Your task to perform on an android device: turn on the 24-hour format for clock Image 0: 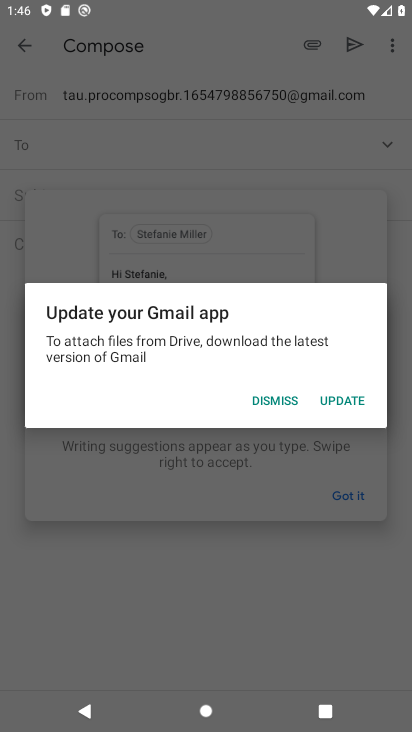
Step 0: press home button
Your task to perform on an android device: turn on the 24-hour format for clock Image 1: 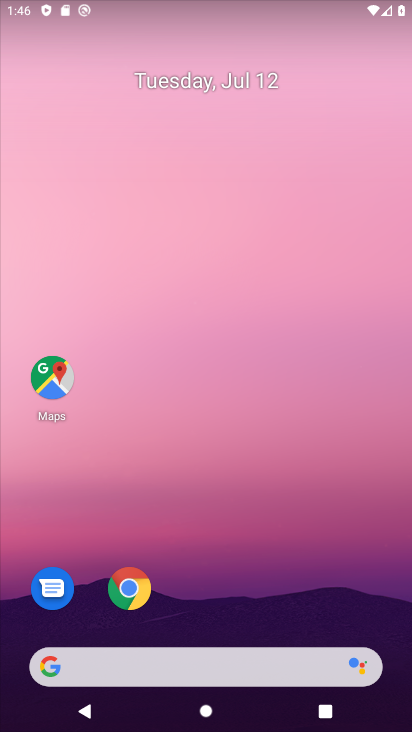
Step 1: drag from (229, 629) to (294, 57)
Your task to perform on an android device: turn on the 24-hour format for clock Image 2: 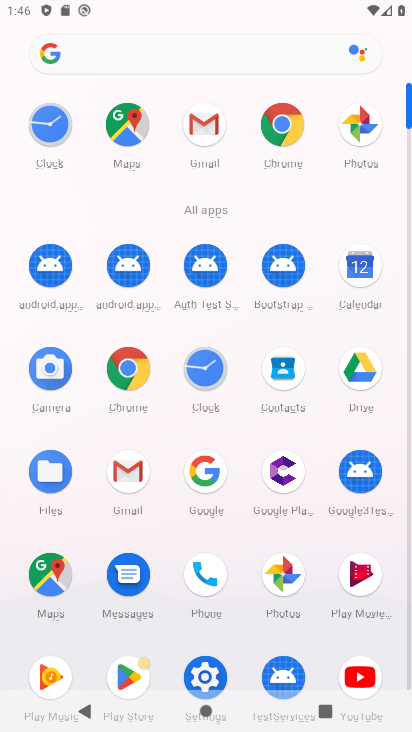
Step 2: click (34, 125)
Your task to perform on an android device: turn on the 24-hour format for clock Image 3: 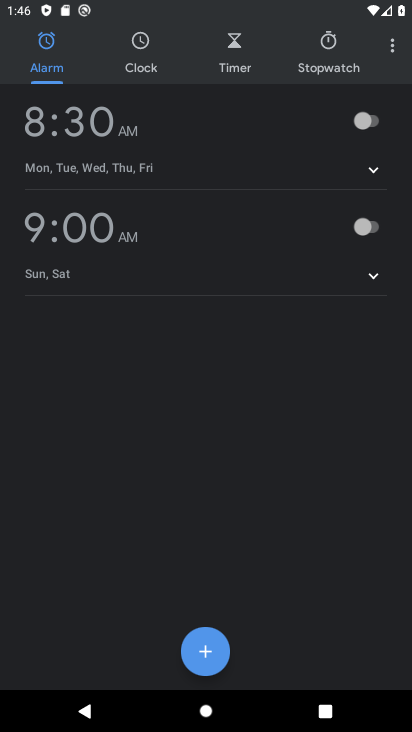
Step 3: click (384, 52)
Your task to perform on an android device: turn on the 24-hour format for clock Image 4: 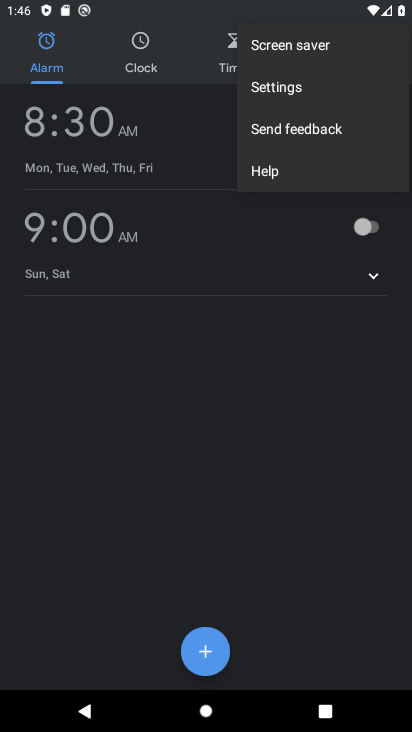
Step 4: click (323, 84)
Your task to perform on an android device: turn on the 24-hour format for clock Image 5: 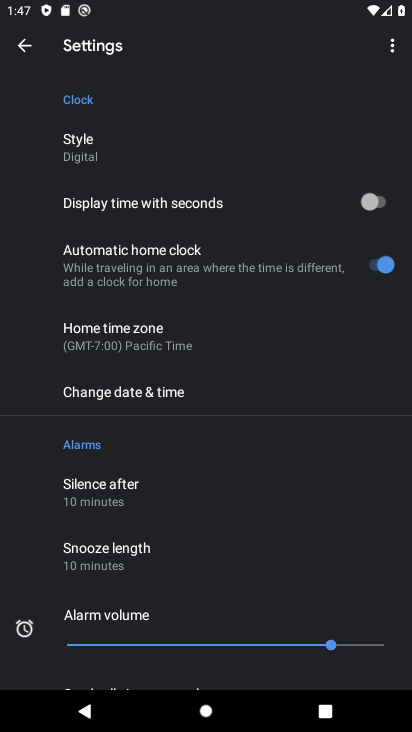
Step 5: drag from (161, 494) to (183, 88)
Your task to perform on an android device: turn on the 24-hour format for clock Image 6: 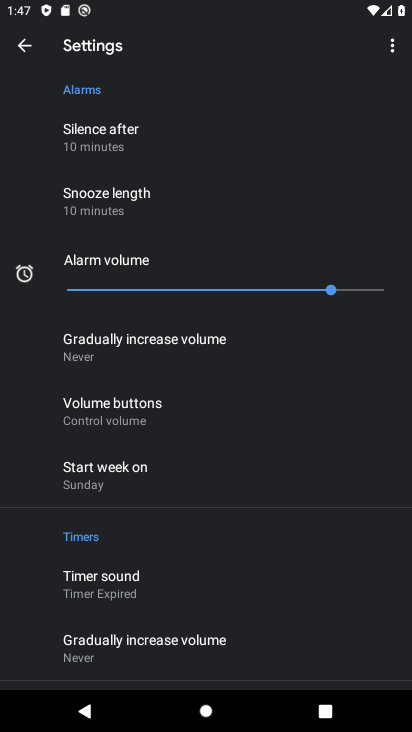
Step 6: drag from (147, 588) to (212, 161)
Your task to perform on an android device: turn on the 24-hour format for clock Image 7: 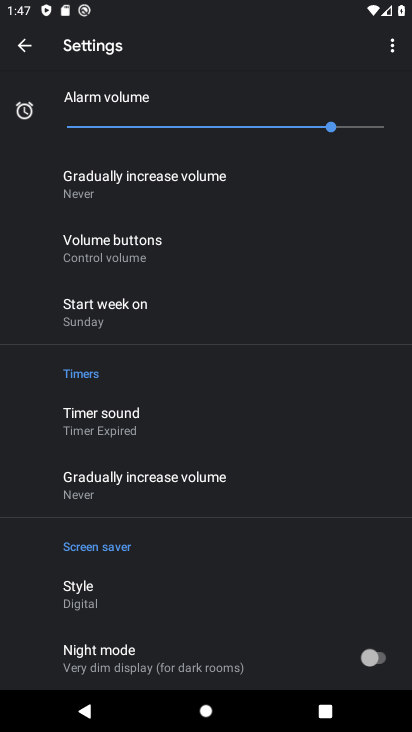
Step 7: drag from (143, 657) to (148, 317)
Your task to perform on an android device: turn on the 24-hour format for clock Image 8: 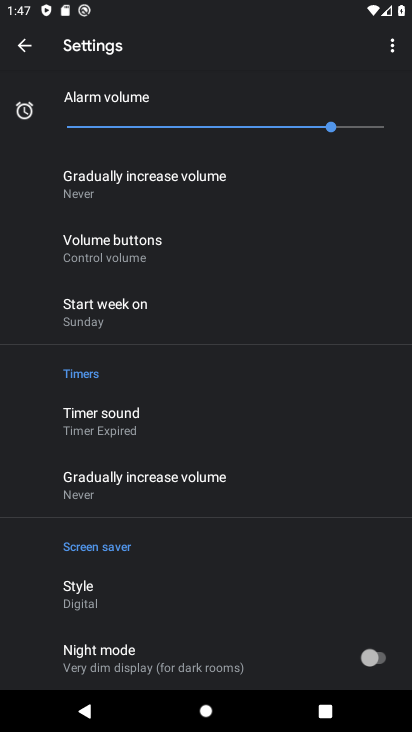
Step 8: drag from (192, 112) to (179, 553)
Your task to perform on an android device: turn on the 24-hour format for clock Image 9: 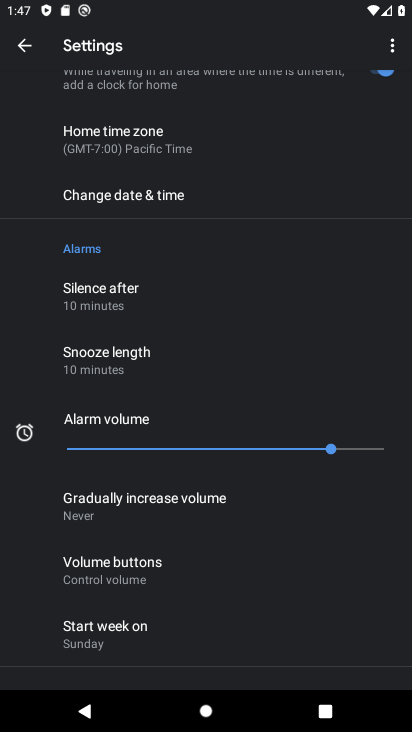
Step 9: drag from (198, 157) to (202, 529)
Your task to perform on an android device: turn on the 24-hour format for clock Image 10: 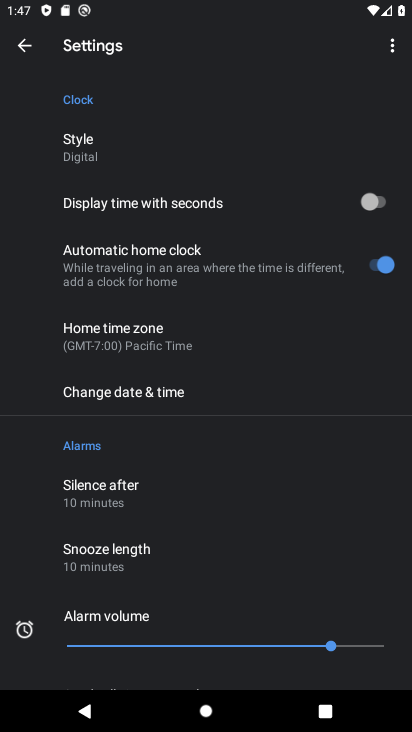
Step 10: drag from (194, 163) to (228, 451)
Your task to perform on an android device: turn on the 24-hour format for clock Image 11: 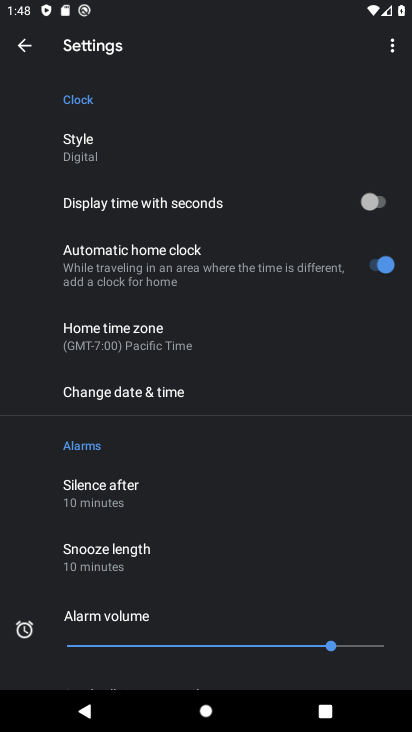
Step 11: click (147, 403)
Your task to perform on an android device: turn on the 24-hour format for clock Image 12: 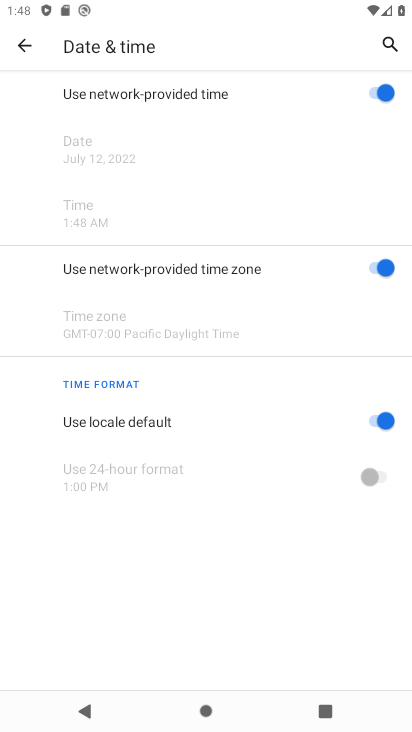
Step 12: click (376, 419)
Your task to perform on an android device: turn on the 24-hour format for clock Image 13: 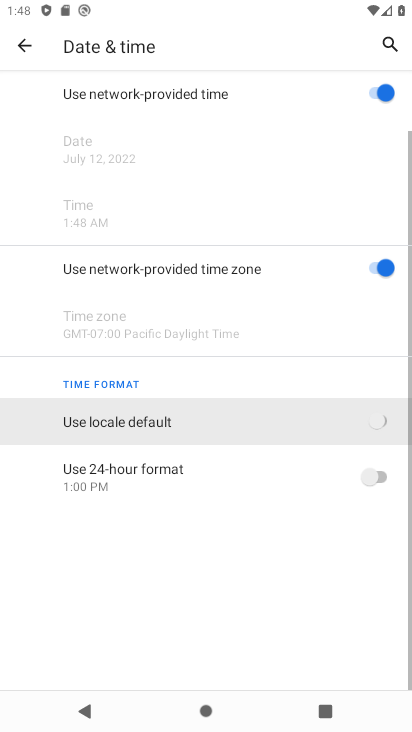
Step 13: click (379, 477)
Your task to perform on an android device: turn on the 24-hour format for clock Image 14: 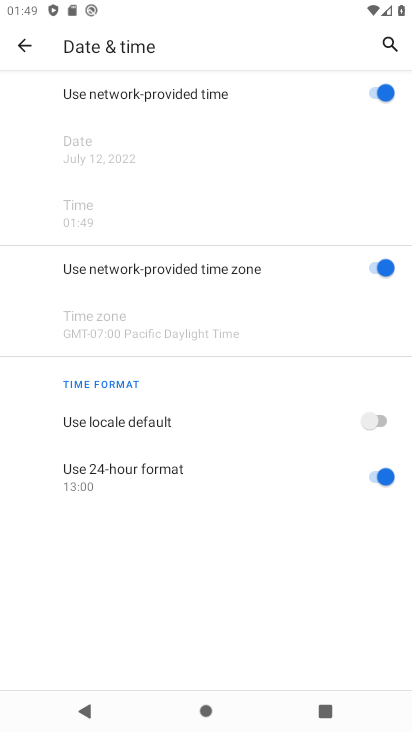
Step 14: task complete